Your task to perform on an android device: turn notification dots on Image 0: 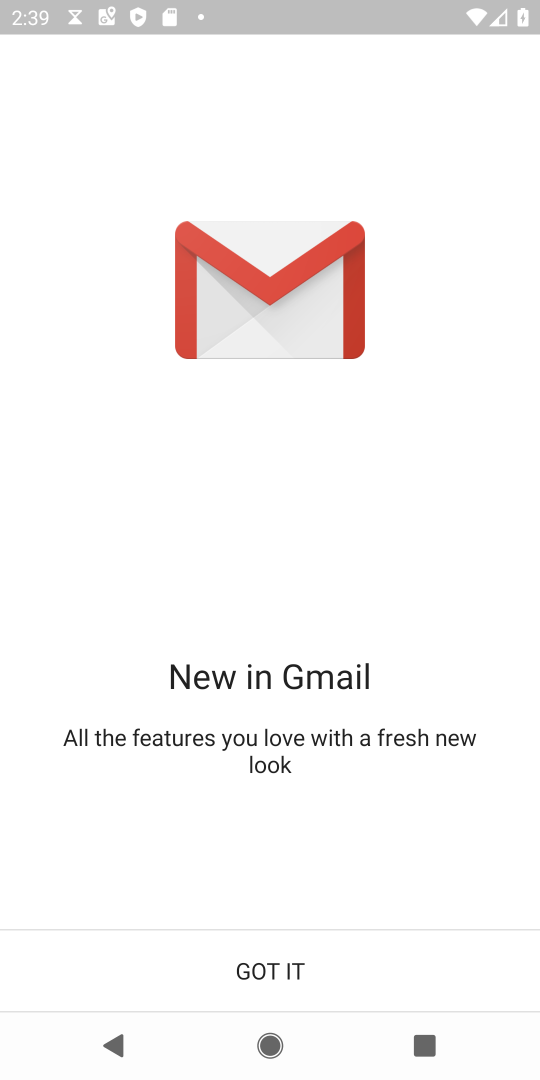
Step 0: press home button
Your task to perform on an android device: turn notification dots on Image 1: 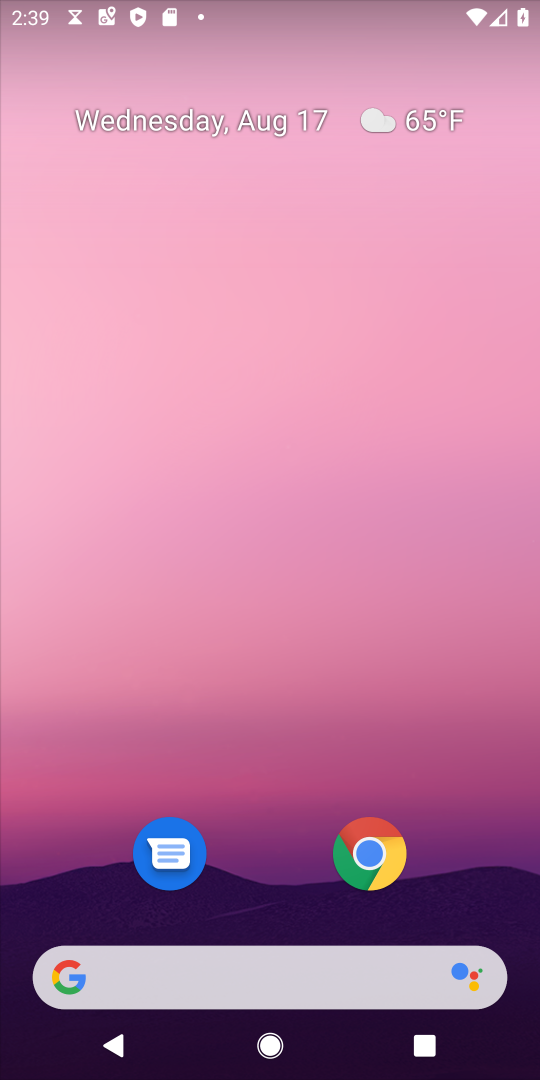
Step 1: drag from (264, 872) to (293, 137)
Your task to perform on an android device: turn notification dots on Image 2: 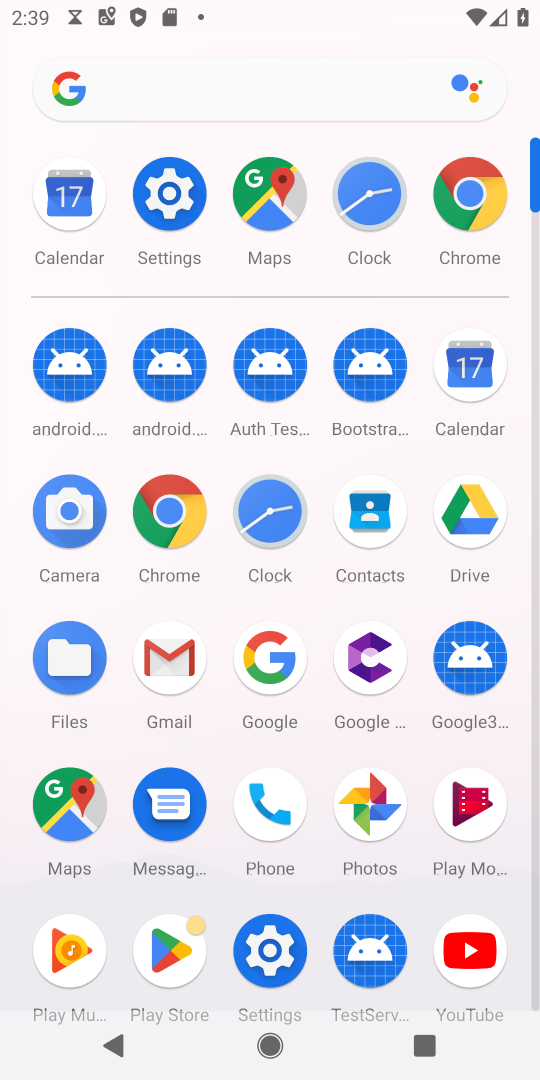
Step 2: click (263, 947)
Your task to perform on an android device: turn notification dots on Image 3: 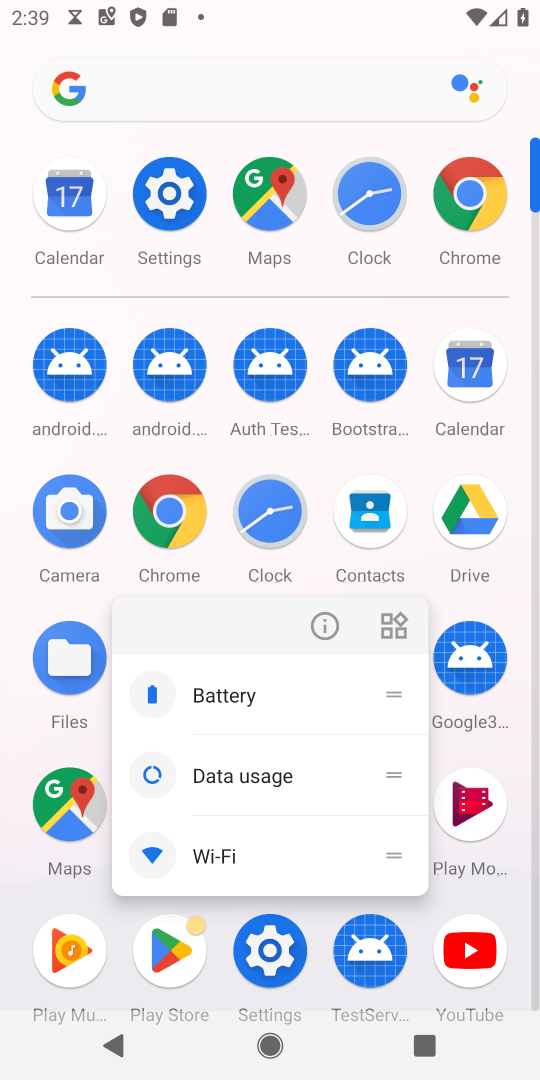
Step 3: click (267, 966)
Your task to perform on an android device: turn notification dots on Image 4: 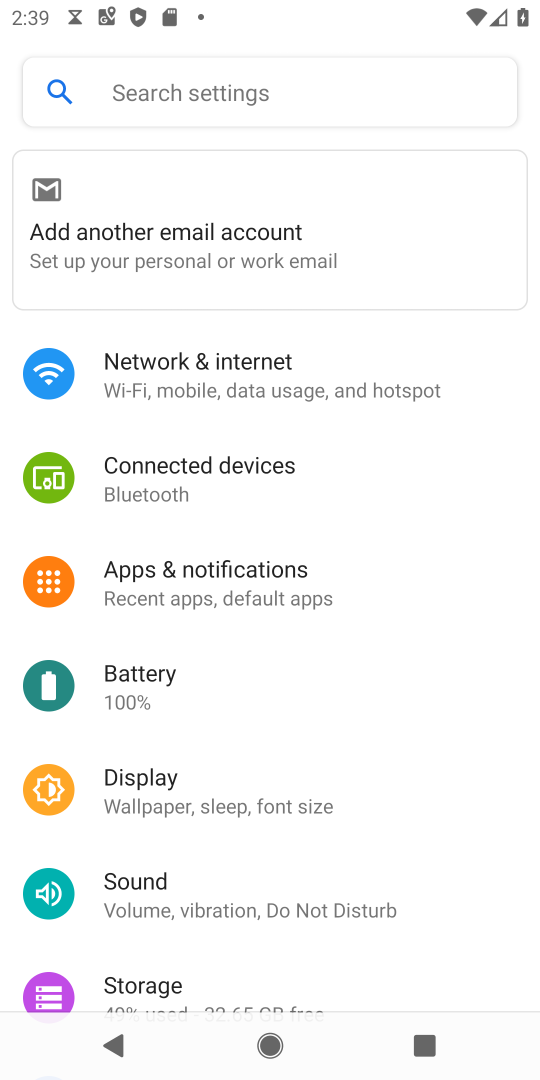
Step 4: click (263, 577)
Your task to perform on an android device: turn notification dots on Image 5: 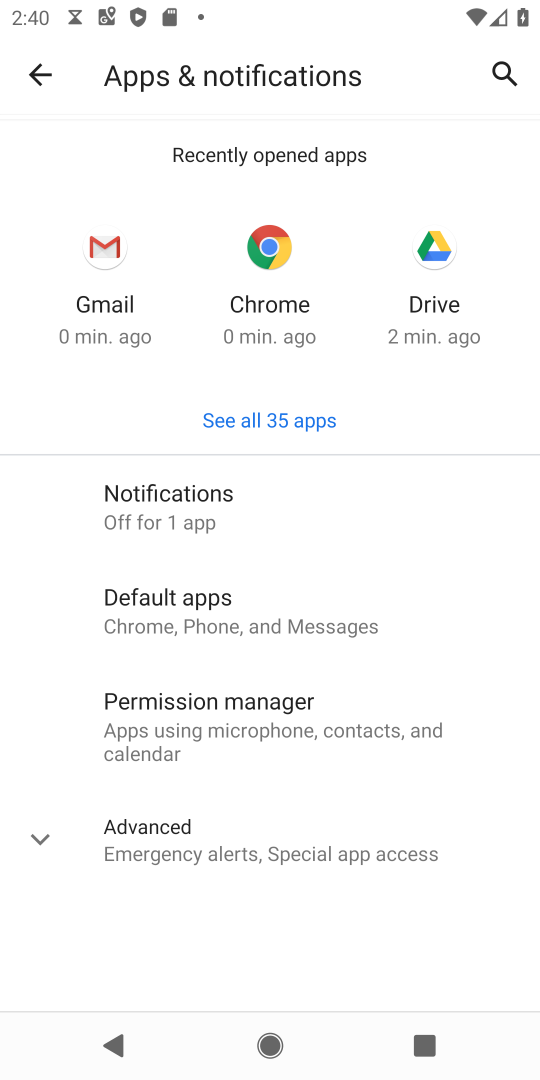
Step 5: click (250, 507)
Your task to perform on an android device: turn notification dots on Image 6: 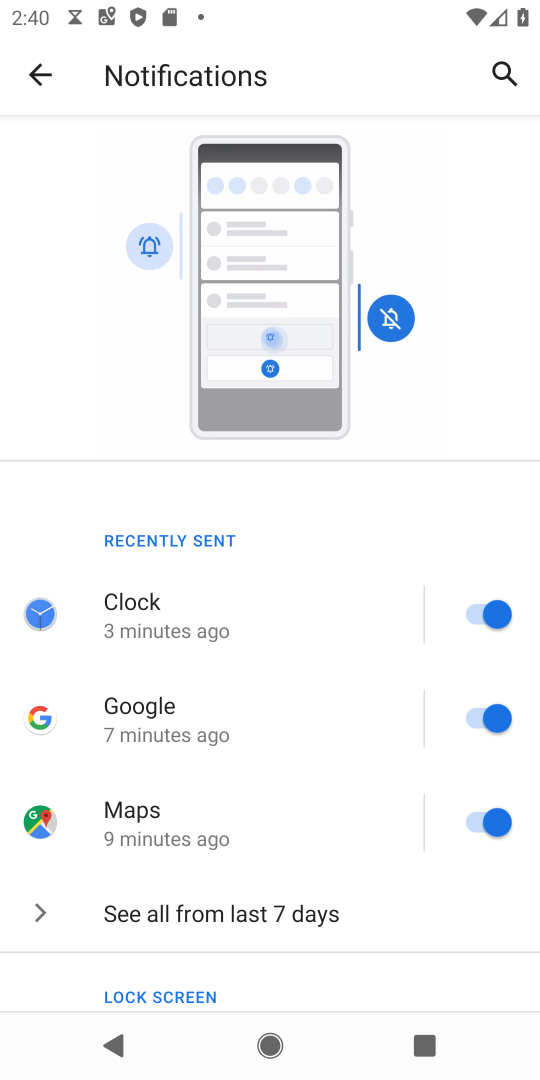
Step 6: drag from (347, 858) to (330, 221)
Your task to perform on an android device: turn notification dots on Image 7: 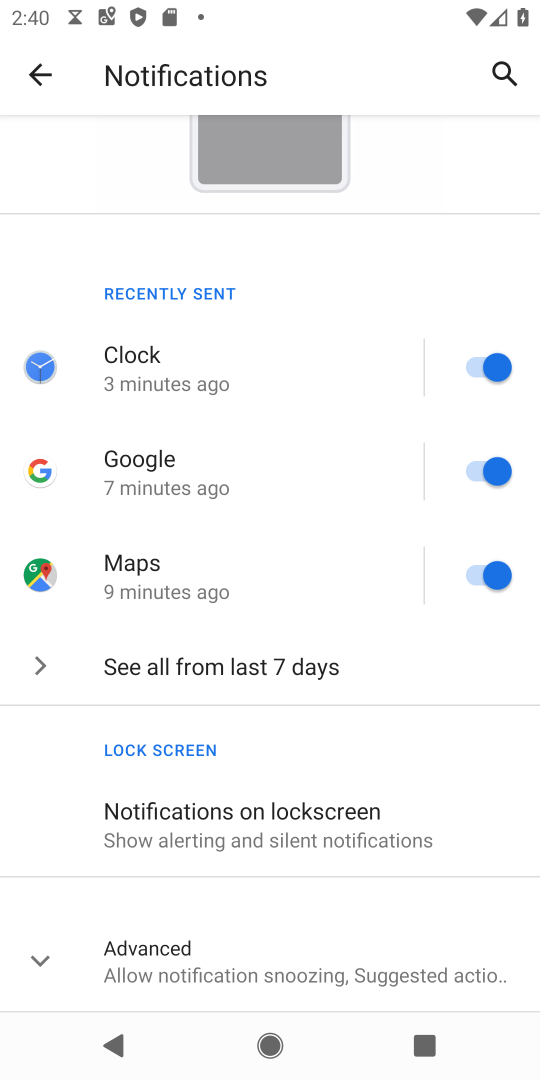
Step 7: click (256, 952)
Your task to perform on an android device: turn notification dots on Image 8: 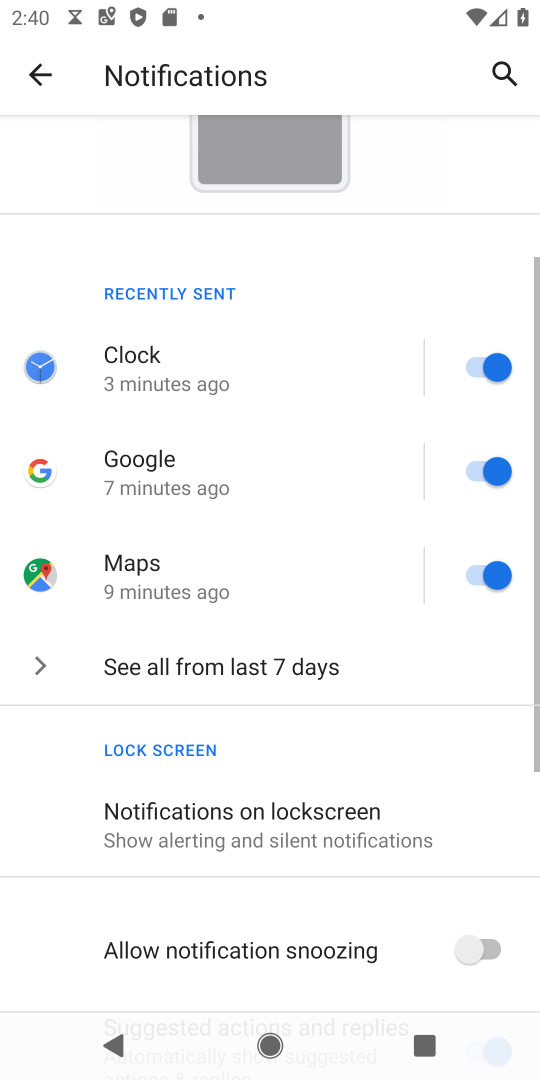
Step 8: task complete